Your task to perform on an android device: Open my contact list Image 0: 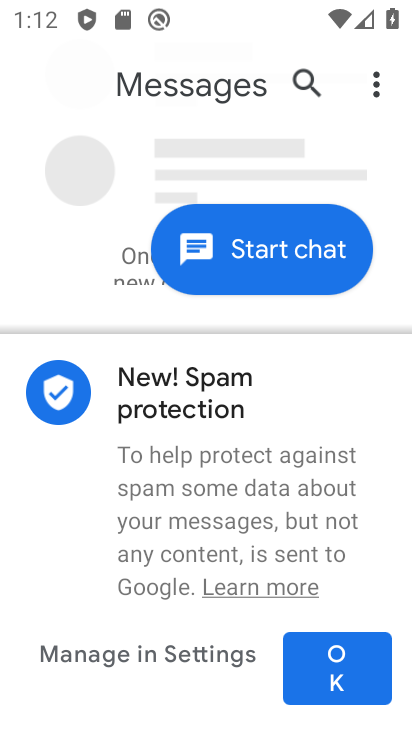
Step 0: press home button
Your task to perform on an android device: Open my contact list Image 1: 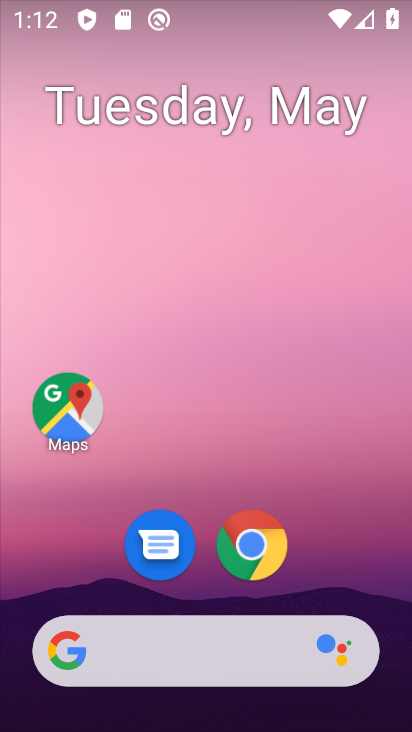
Step 1: drag from (384, 623) to (346, 30)
Your task to perform on an android device: Open my contact list Image 2: 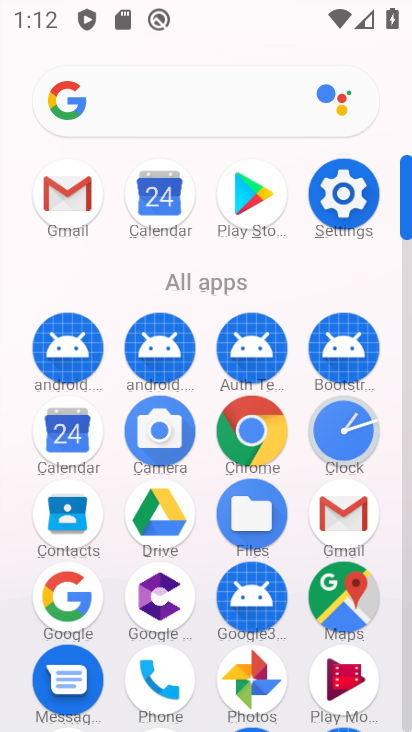
Step 2: click (407, 721)
Your task to perform on an android device: Open my contact list Image 3: 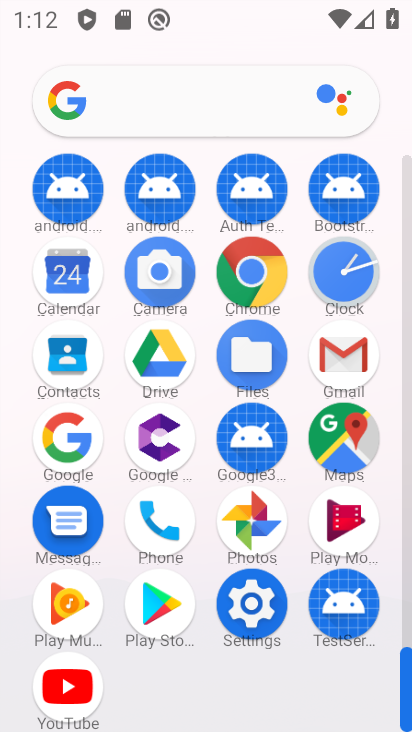
Step 3: click (65, 351)
Your task to perform on an android device: Open my contact list Image 4: 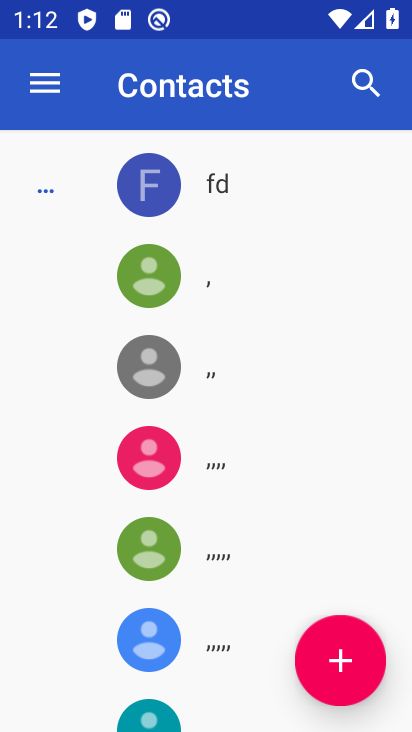
Step 4: task complete